Your task to perform on an android device: show emergency info Image 0: 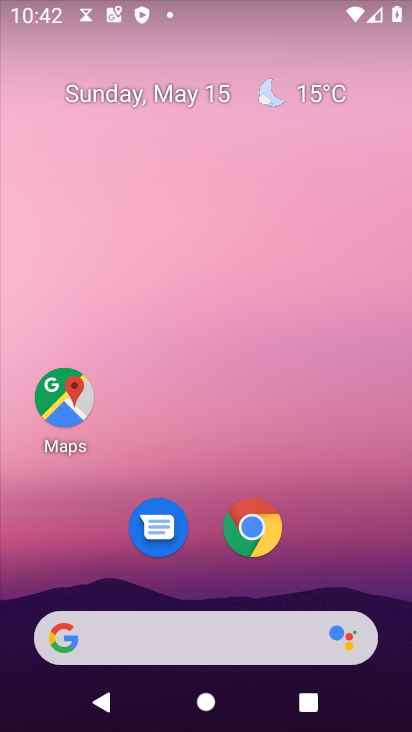
Step 0: drag from (324, 565) to (223, 157)
Your task to perform on an android device: show emergency info Image 1: 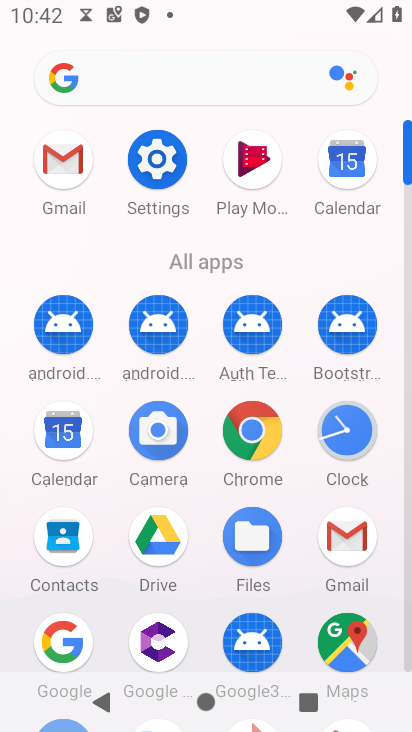
Step 1: click (155, 157)
Your task to perform on an android device: show emergency info Image 2: 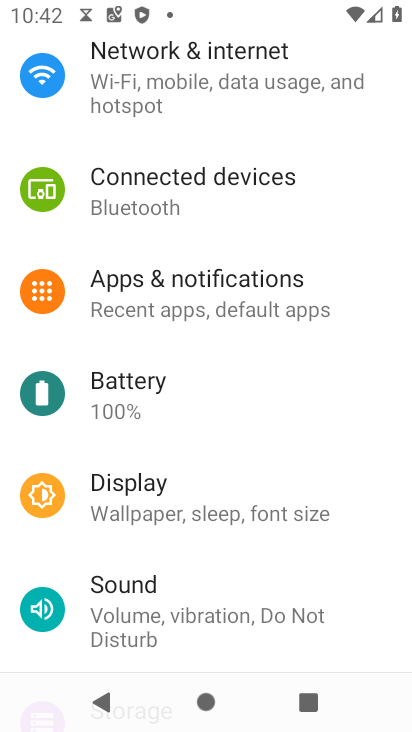
Step 2: drag from (198, 386) to (210, 304)
Your task to perform on an android device: show emergency info Image 3: 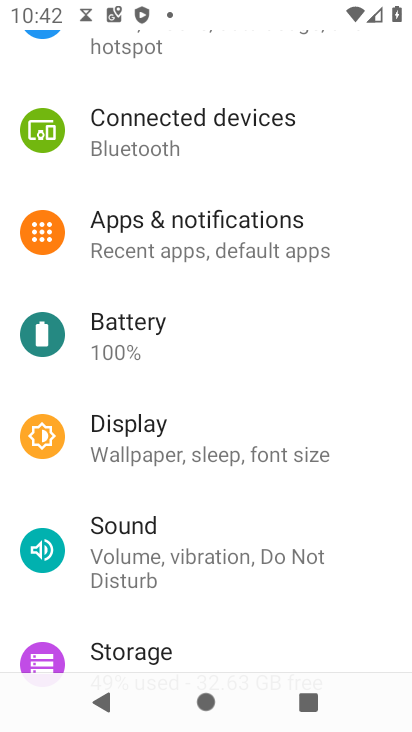
Step 3: drag from (209, 385) to (219, 313)
Your task to perform on an android device: show emergency info Image 4: 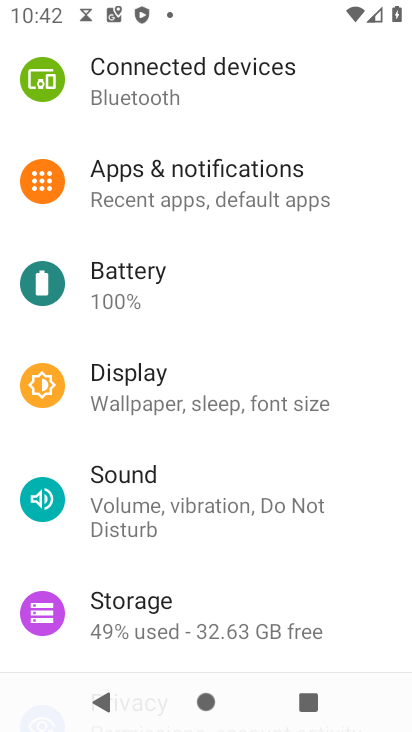
Step 4: drag from (181, 430) to (202, 323)
Your task to perform on an android device: show emergency info Image 5: 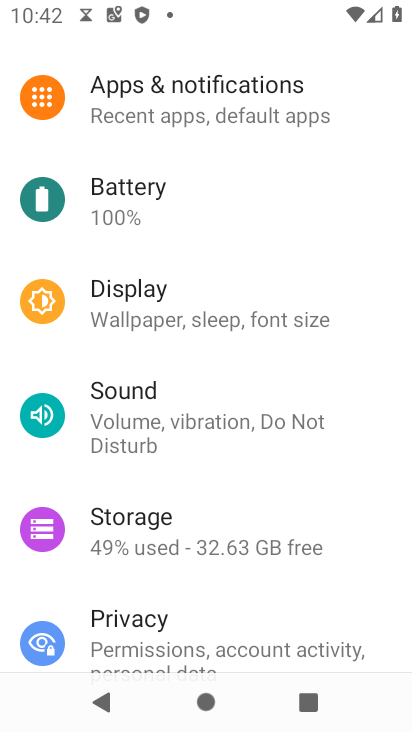
Step 5: drag from (171, 464) to (195, 342)
Your task to perform on an android device: show emergency info Image 6: 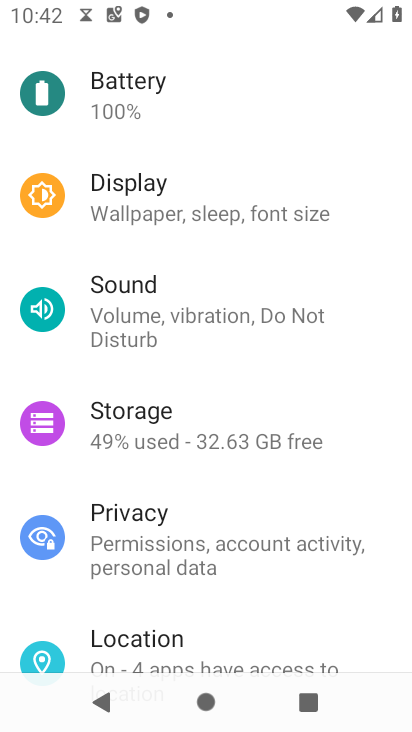
Step 6: drag from (192, 403) to (206, 264)
Your task to perform on an android device: show emergency info Image 7: 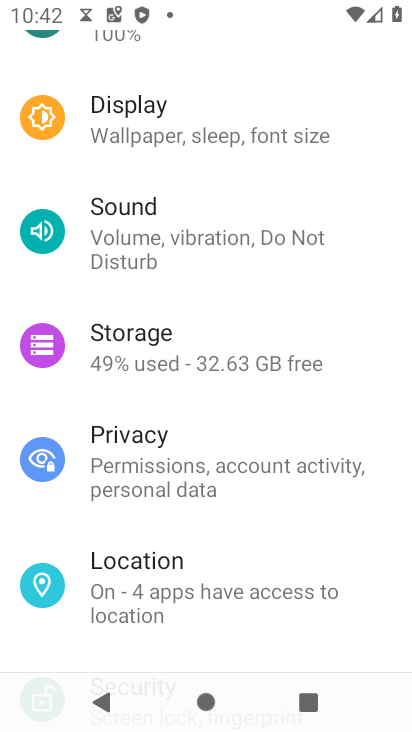
Step 7: drag from (184, 405) to (210, 279)
Your task to perform on an android device: show emergency info Image 8: 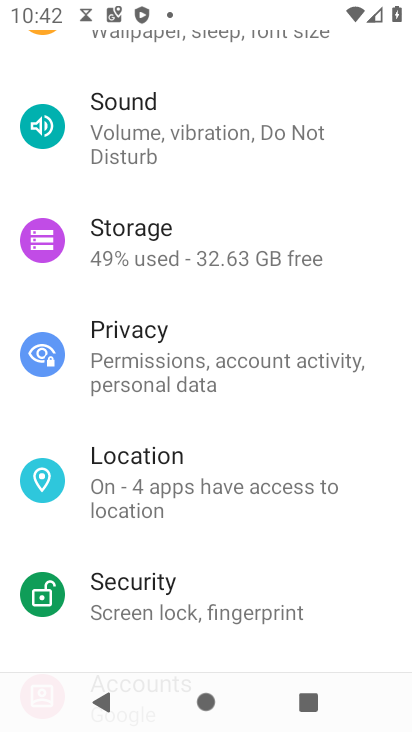
Step 8: drag from (185, 434) to (224, 317)
Your task to perform on an android device: show emergency info Image 9: 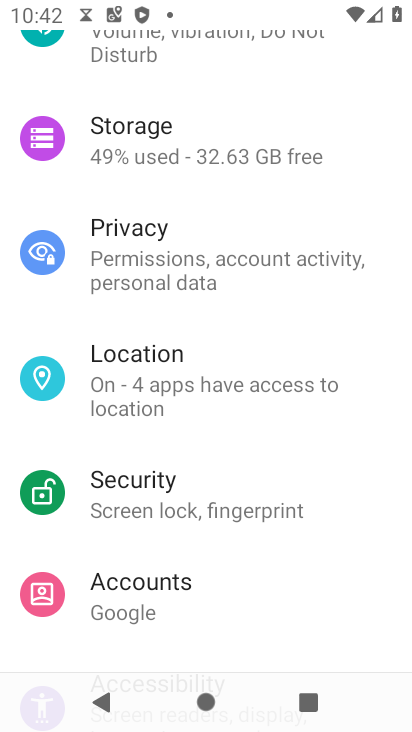
Step 9: drag from (211, 444) to (211, 322)
Your task to perform on an android device: show emergency info Image 10: 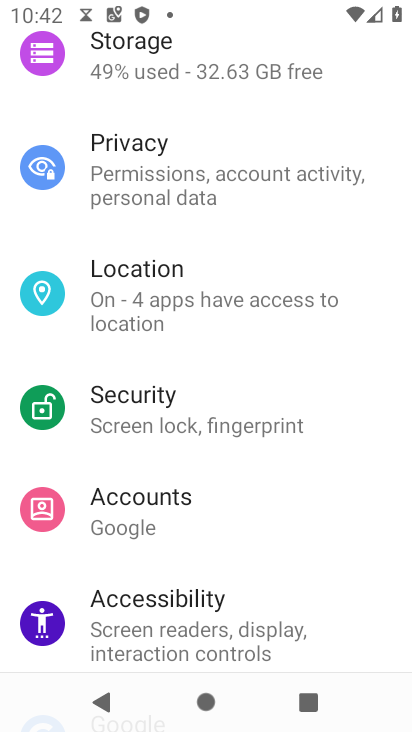
Step 10: drag from (188, 387) to (203, 354)
Your task to perform on an android device: show emergency info Image 11: 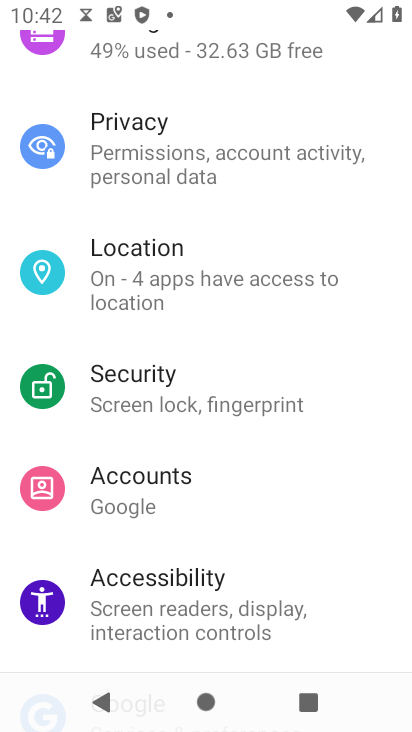
Step 11: drag from (179, 517) to (231, 415)
Your task to perform on an android device: show emergency info Image 12: 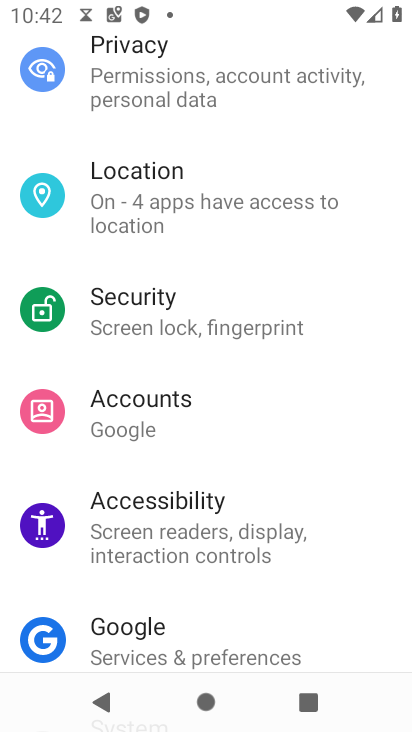
Step 12: drag from (207, 603) to (250, 456)
Your task to perform on an android device: show emergency info Image 13: 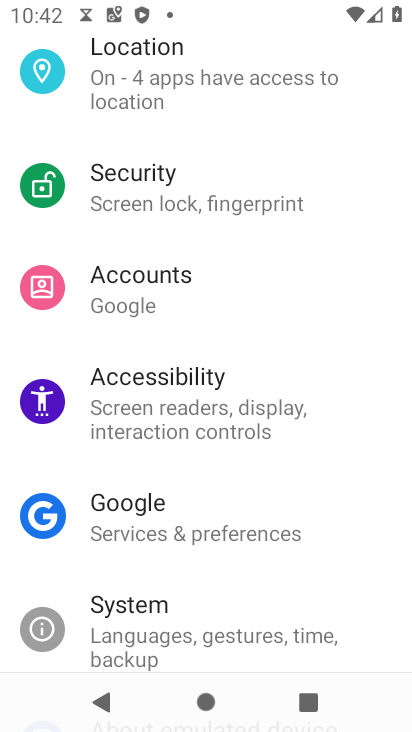
Step 13: drag from (183, 588) to (239, 459)
Your task to perform on an android device: show emergency info Image 14: 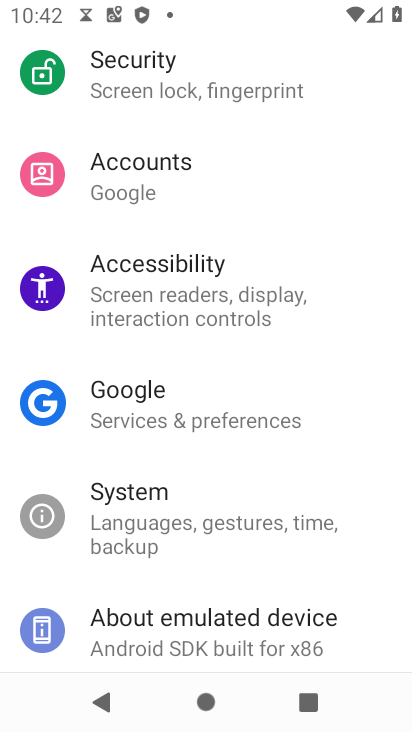
Step 14: click (170, 624)
Your task to perform on an android device: show emergency info Image 15: 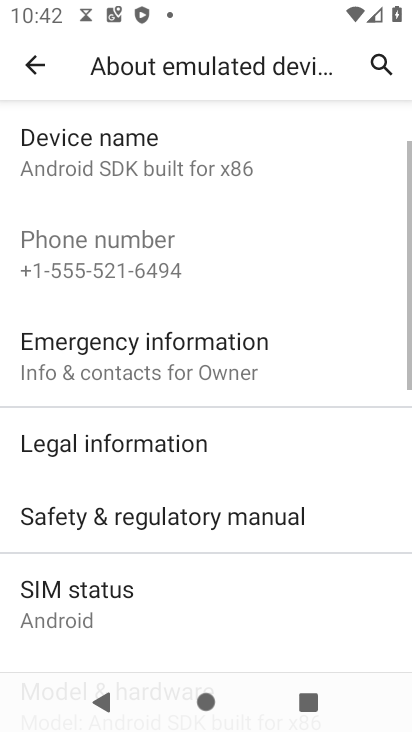
Step 15: click (202, 360)
Your task to perform on an android device: show emergency info Image 16: 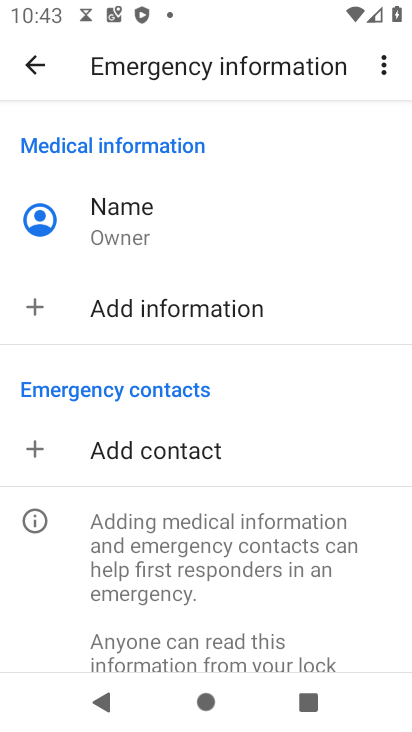
Step 16: task complete